Your task to perform on an android device: toggle show notifications on the lock screen Image 0: 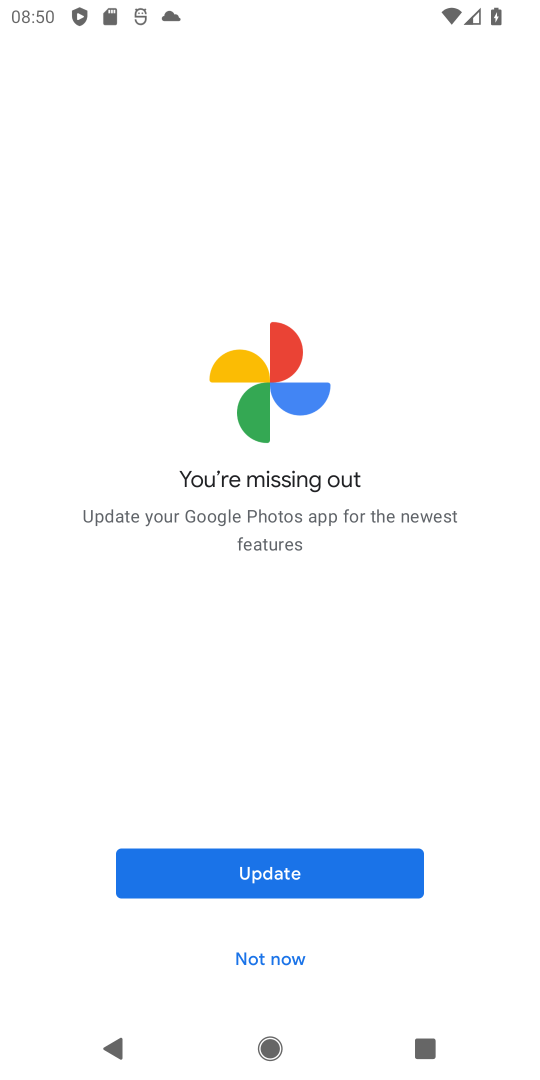
Step 0: press home button
Your task to perform on an android device: toggle show notifications on the lock screen Image 1: 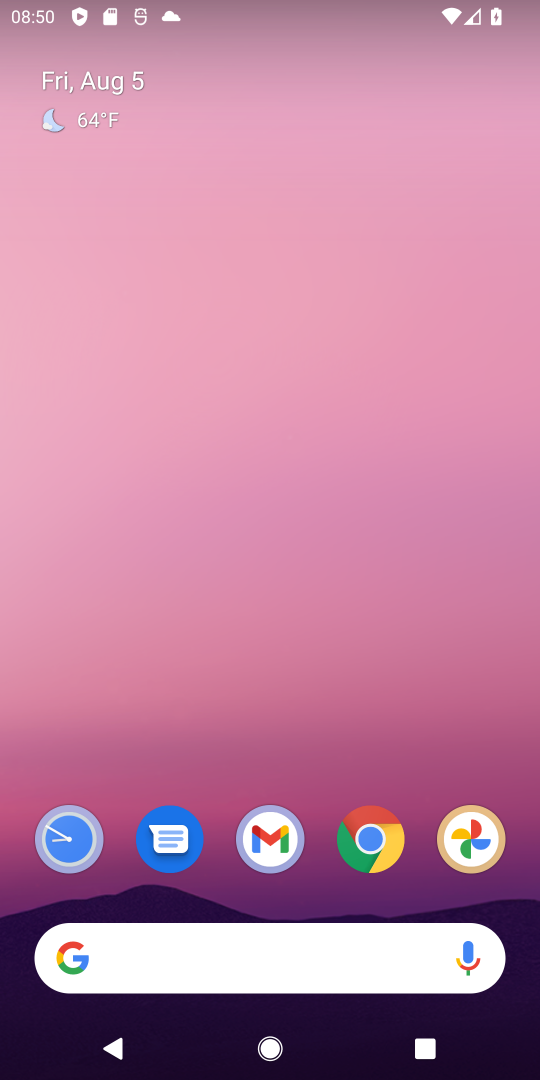
Step 1: drag from (326, 711) to (331, 133)
Your task to perform on an android device: toggle show notifications on the lock screen Image 2: 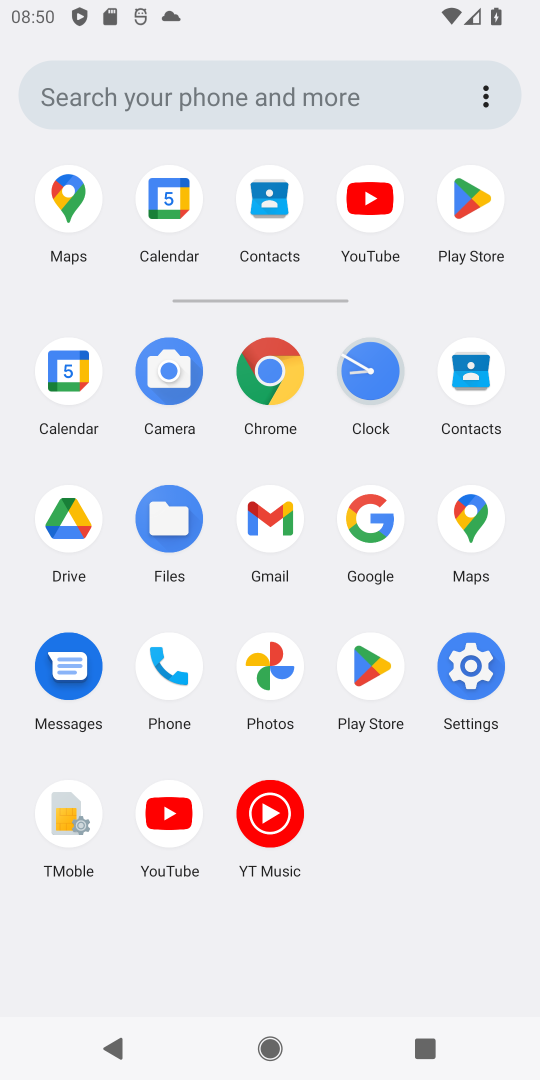
Step 2: click (476, 655)
Your task to perform on an android device: toggle show notifications on the lock screen Image 3: 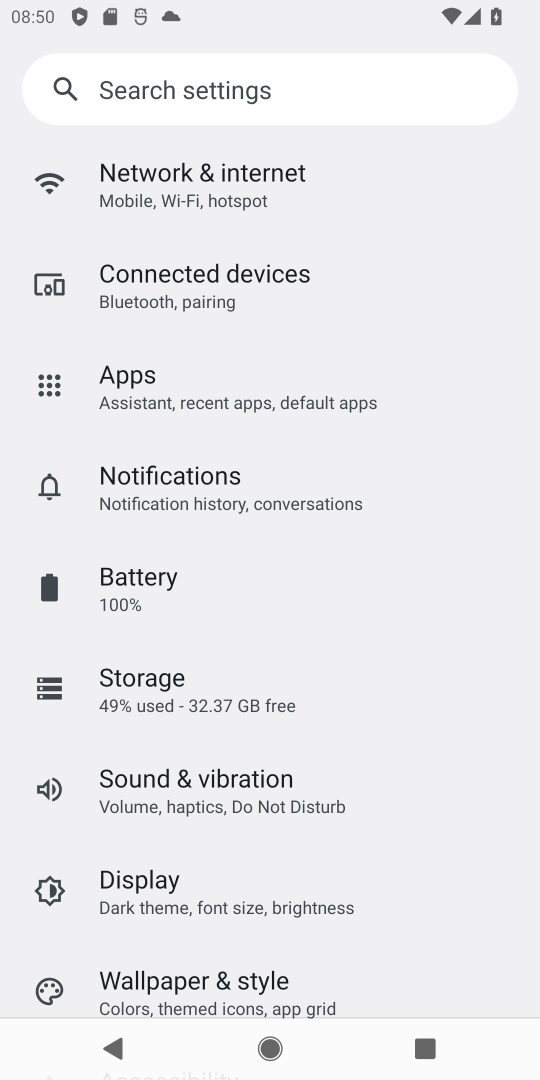
Step 3: click (164, 479)
Your task to perform on an android device: toggle show notifications on the lock screen Image 4: 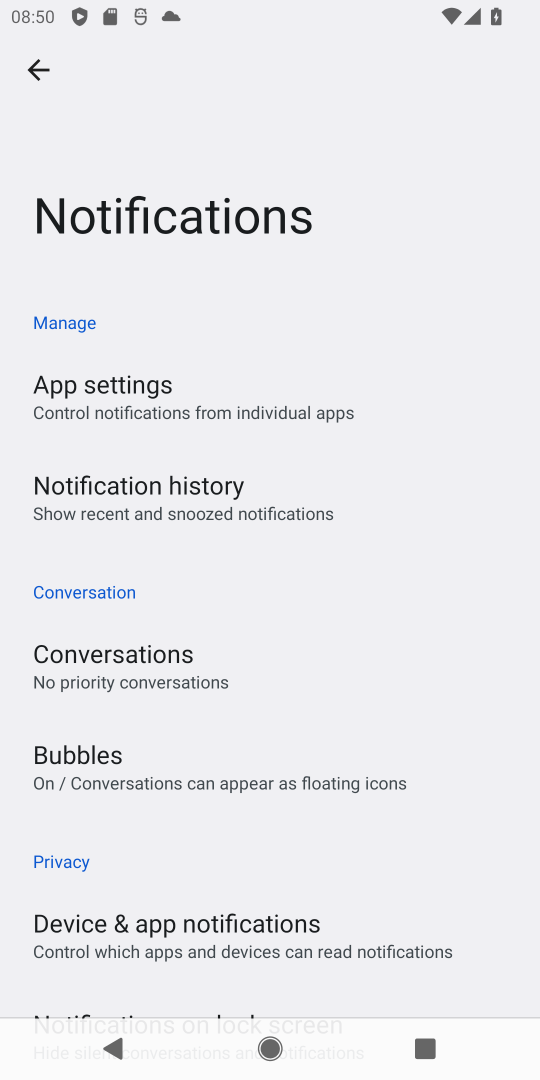
Step 4: drag from (203, 894) to (242, 477)
Your task to perform on an android device: toggle show notifications on the lock screen Image 5: 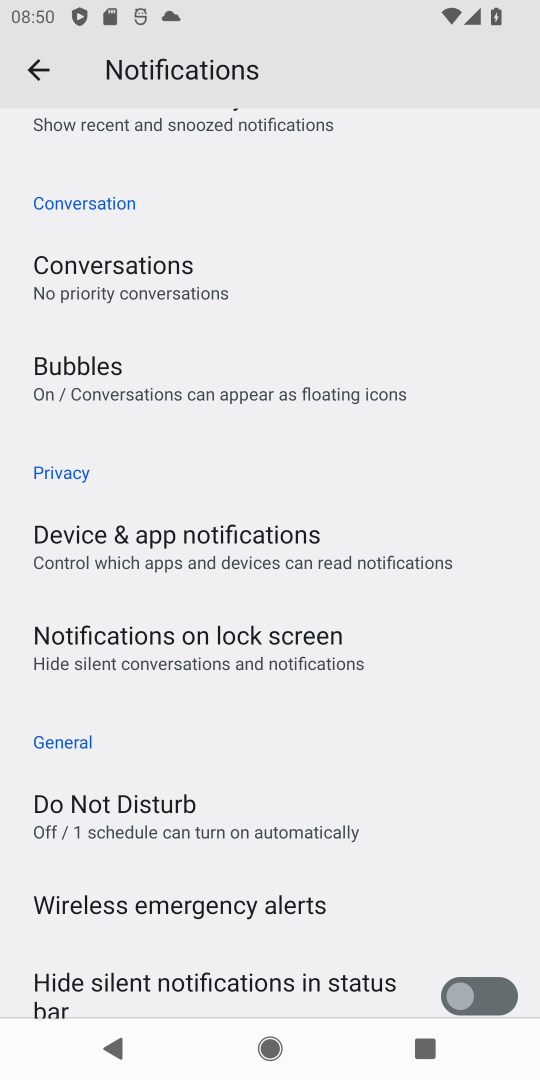
Step 5: click (138, 652)
Your task to perform on an android device: toggle show notifications on the lock screen Image 6: 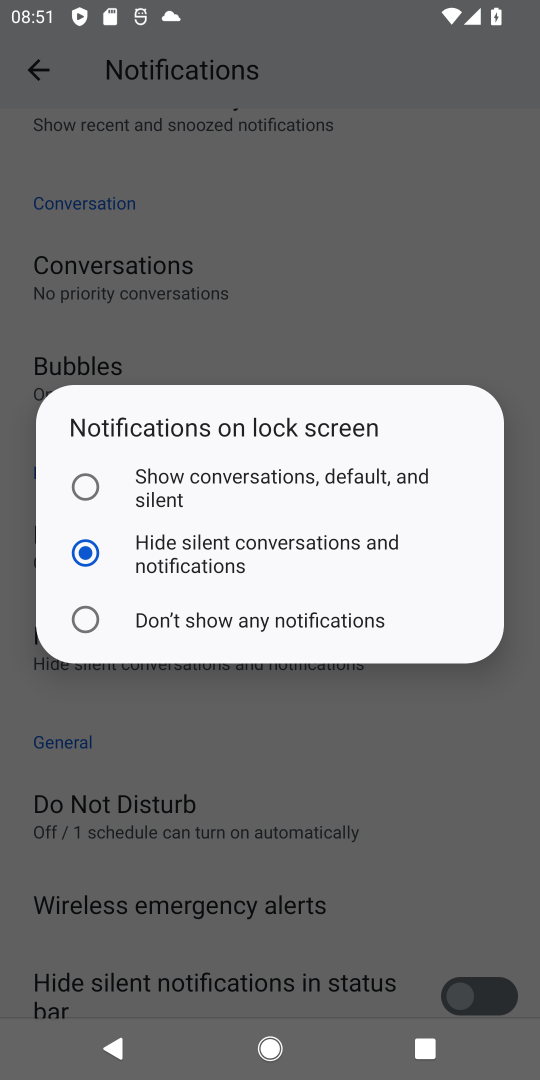
Step 6: click (450, 275)
Your task to perform on an android device: toggle show notifications on the lock screen Image 7: 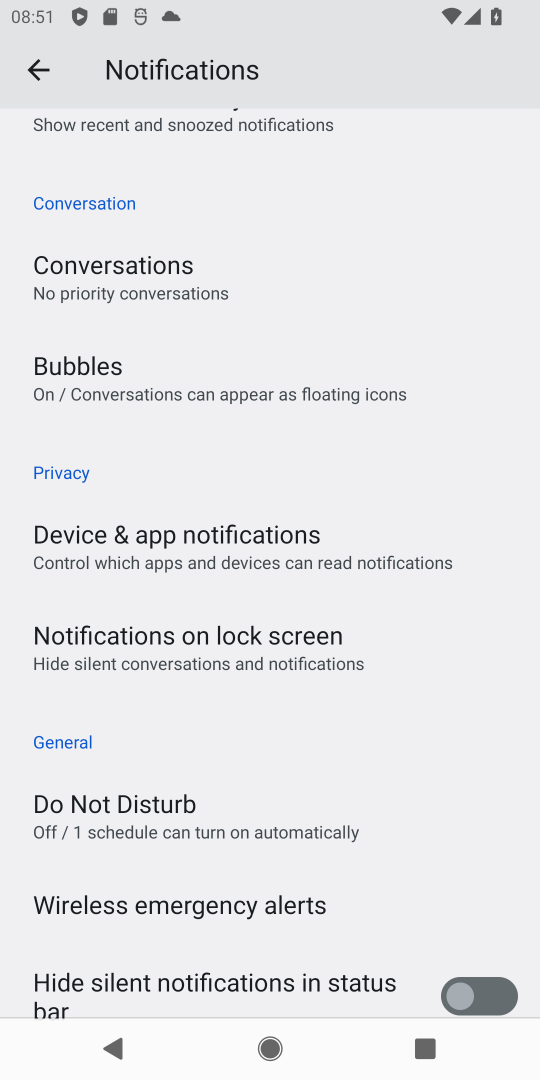
Step 7: task complete